Your task to perform on an android device: Clear the shopping cart on ebay. Image 0: 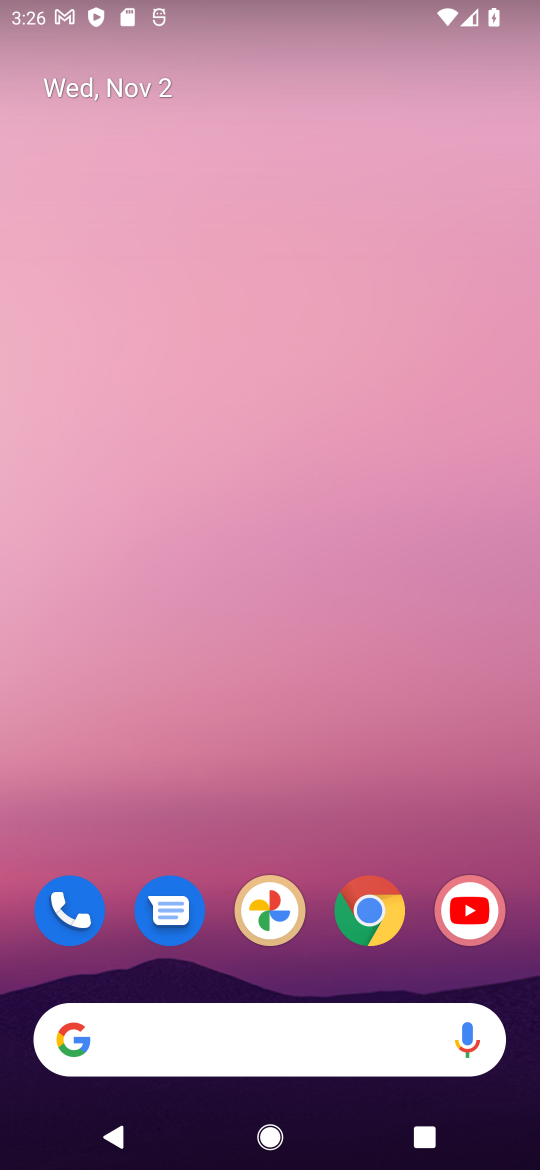
Step 0: click (372, 909)
Your task to perform on an android device: Clear the shopping cart on ebay. Image 1: 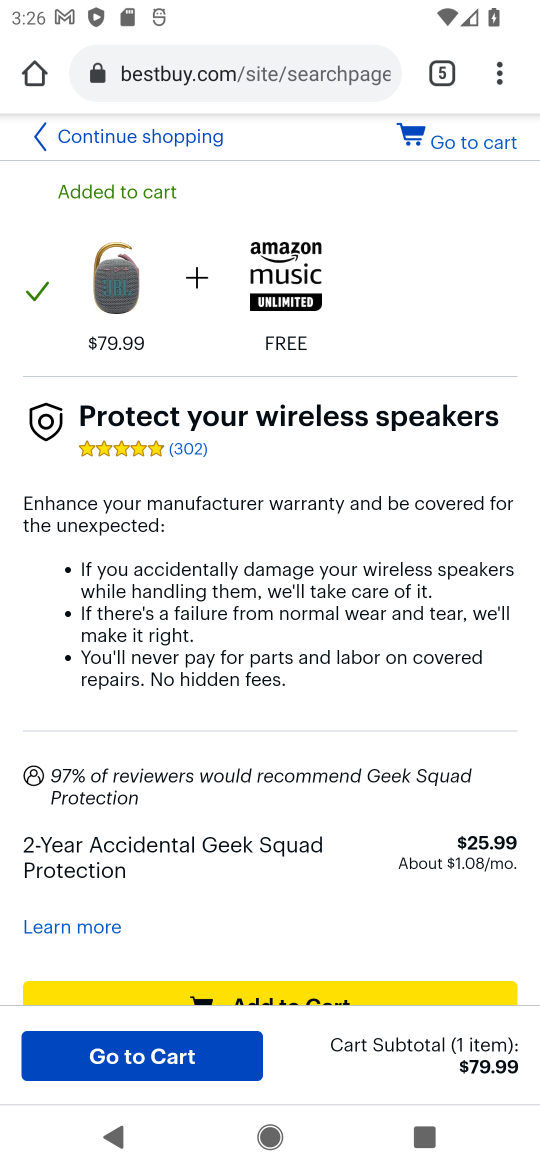
Step 1: click (440, 79)
Your task to perform on an android device: Clear the shopping cart on ebay. Image 2: 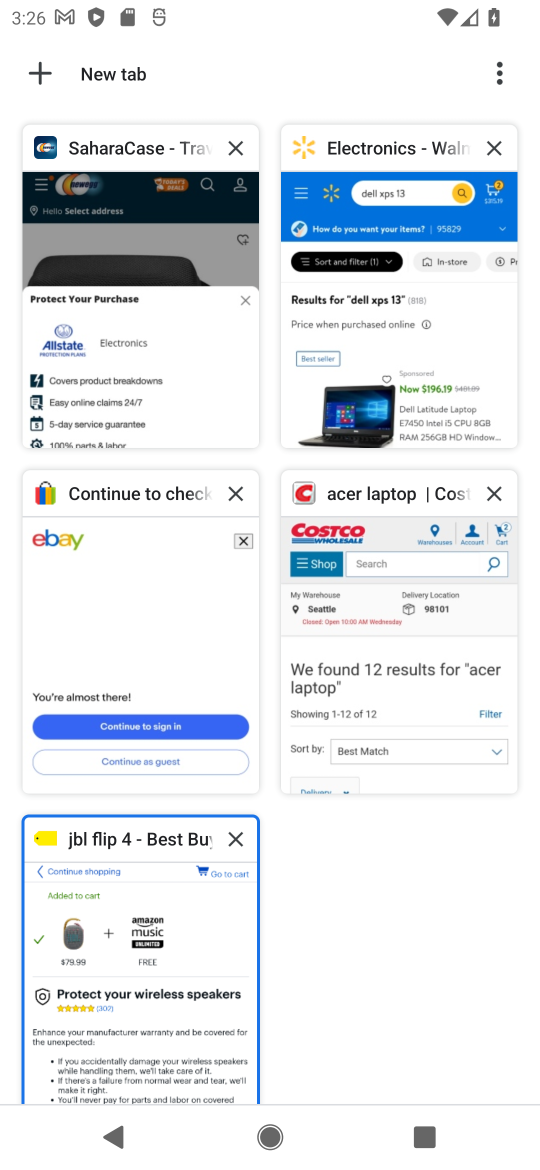
Step 2: click (178, 606)
Your task to perform on an android device: Clear the shopping cart on ebay. Image 3: 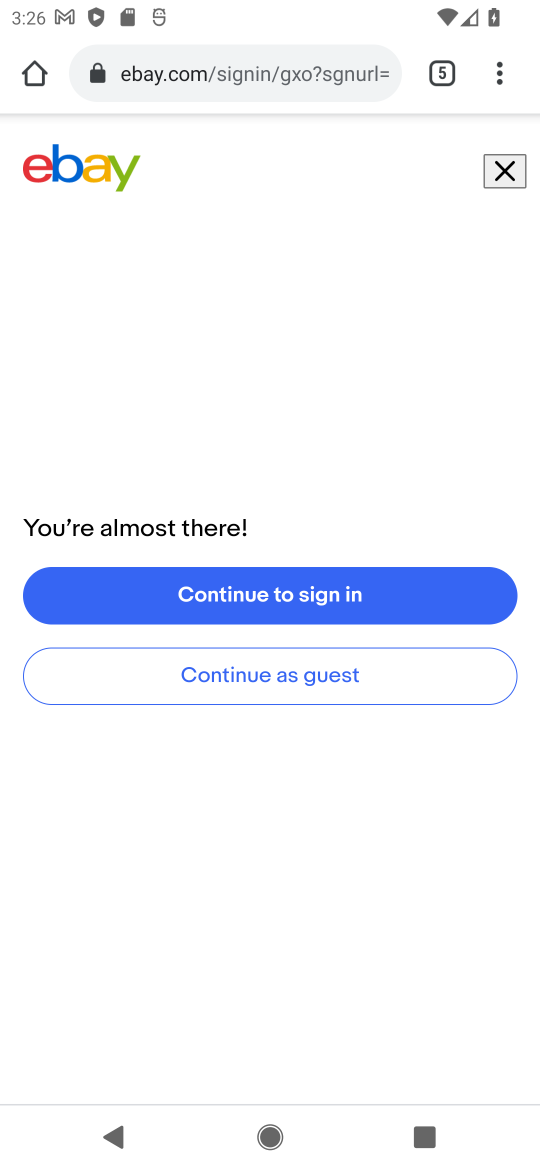
Step 3: click (500, 177)
Your task to perform on an android device: Clear the shopping cart on ebay. Image 4: 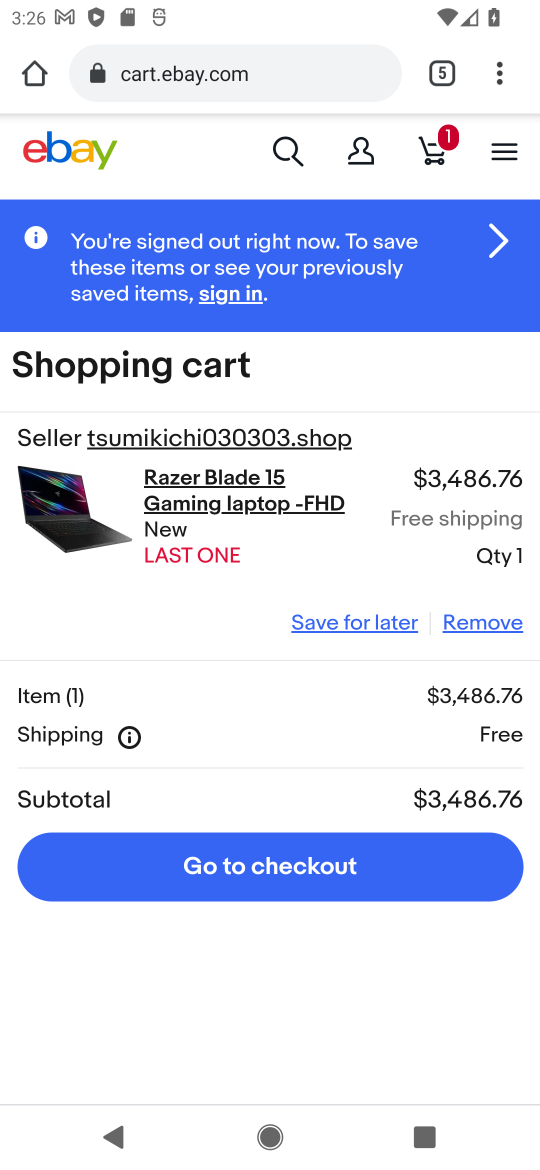
Step 4: click (484, 625)
Your task to perform on an android device: Clear the shopping cart on ebay. Image 5: 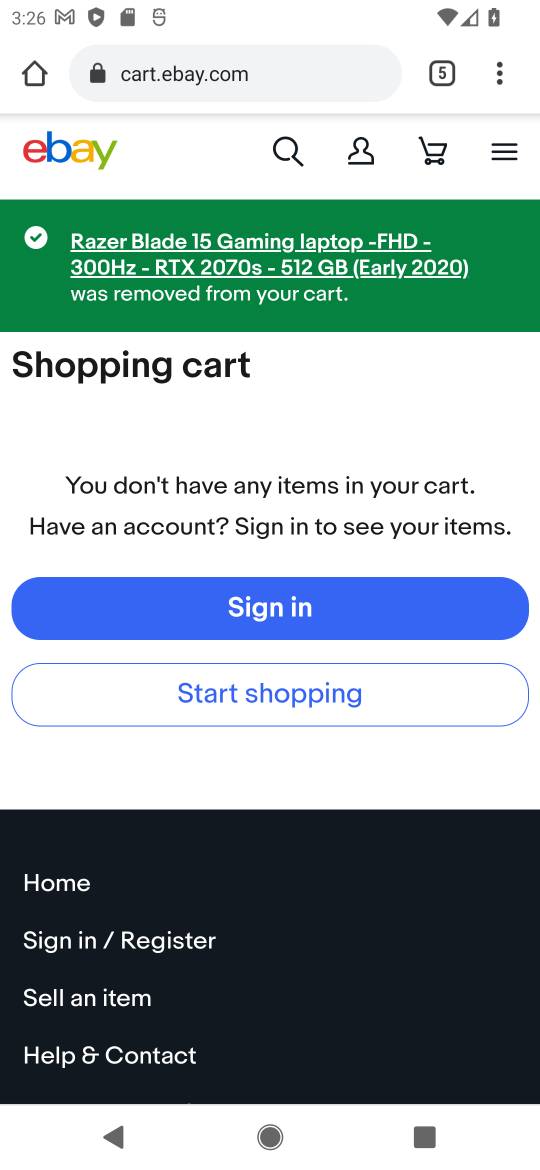
Step 5: task complete